Your task to perform on an android device: Open accessibility settings Image 0: 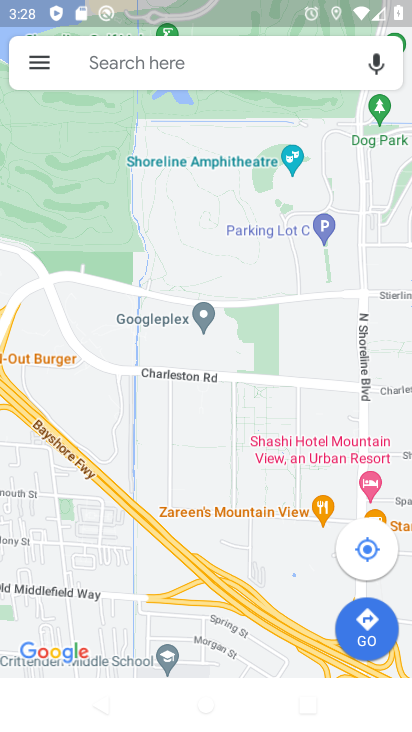
Step 0: press home button
Your task to perform on an android device: Open accessibility settings Image 1: 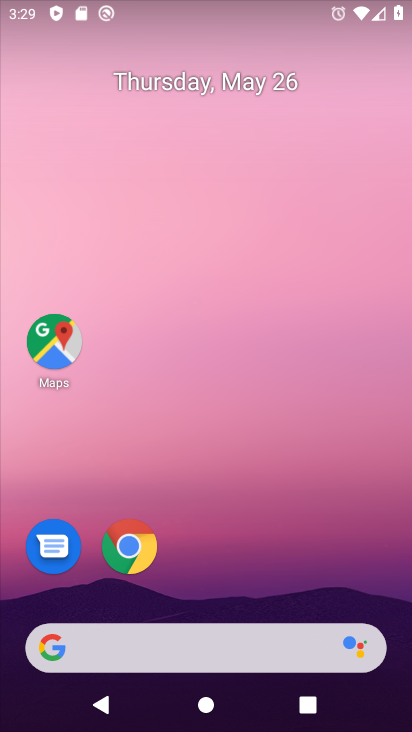
Step 1: drag from (400, 678) to (367, 248)
Your task to perform on an android device: Open accessibility settings Image 2: 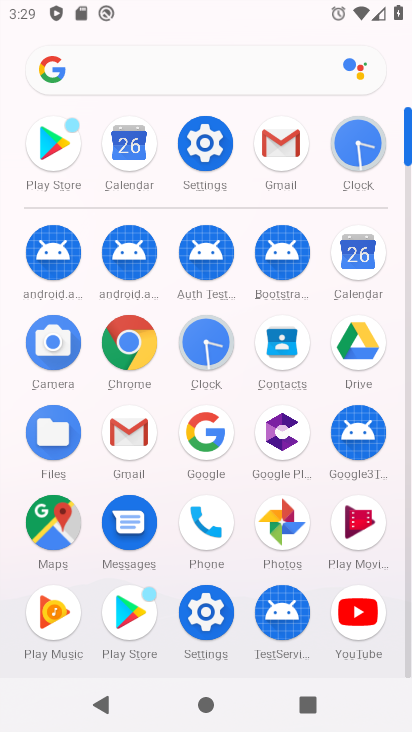
Step 2: click (203, 607)
Your task to perform on an android device: Open accessibility settings Image 3: 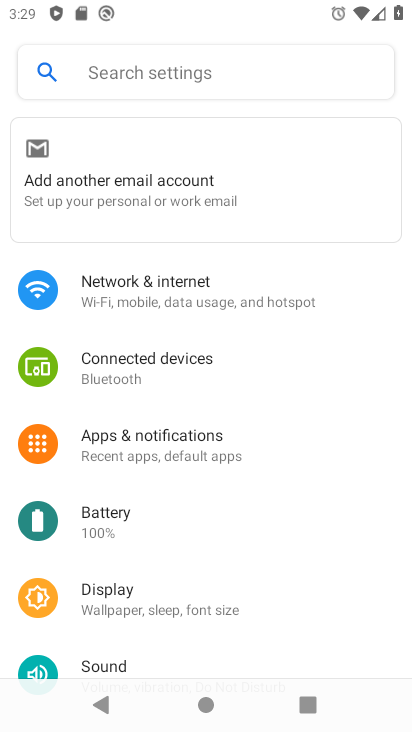
Step 3: drag from (264, 623) to (248, 243)
Your task to perform on an android device: Open accessibility settings Image 4: 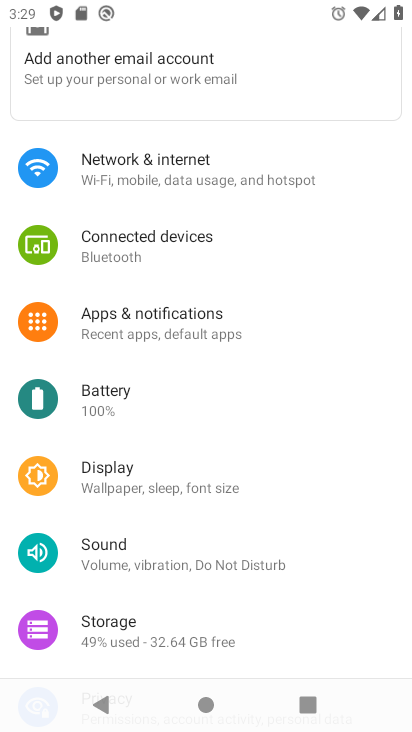
Step 4: drag from (302, 643) to (301, 226)
Your task to perform on an android device: Open accessibility settings Image 5: 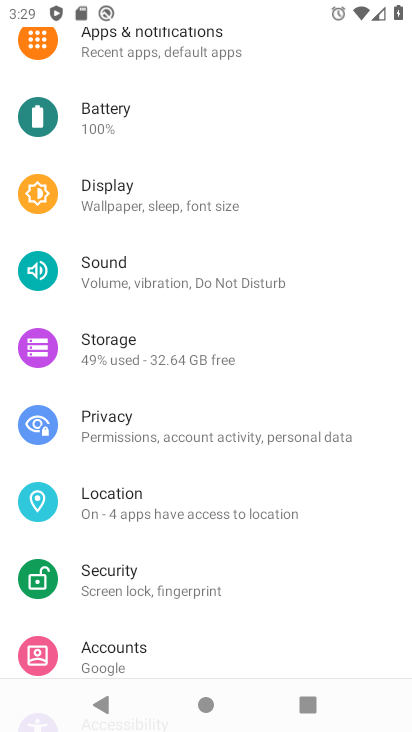
Step 5: drag from (250, 602) to (258, 294)
Your task to perform on an android device: Open accessibility settings Image 6: 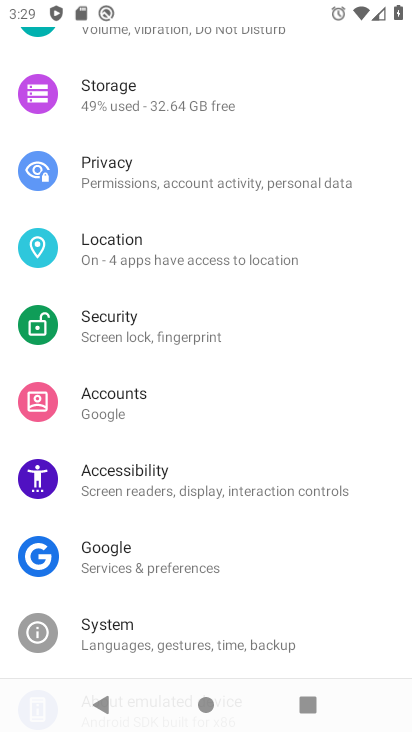
Step 6: click (119, 460)
Your task to perform on an android device: Open accessibility settings Image 7: 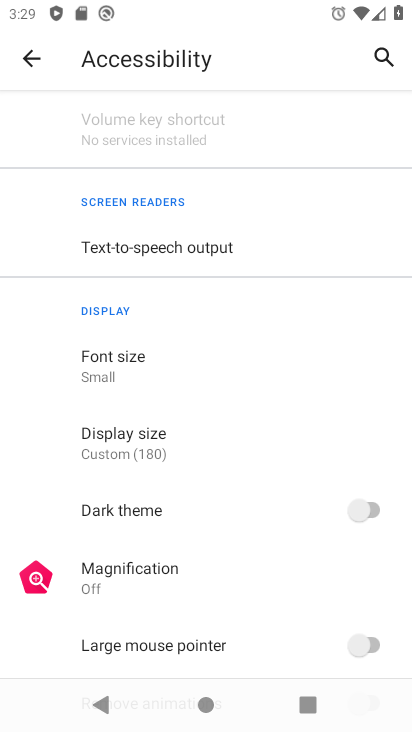
Step 7: task complete